Your task to perform on an android device: turn on javascript in the chrome app Image 0: 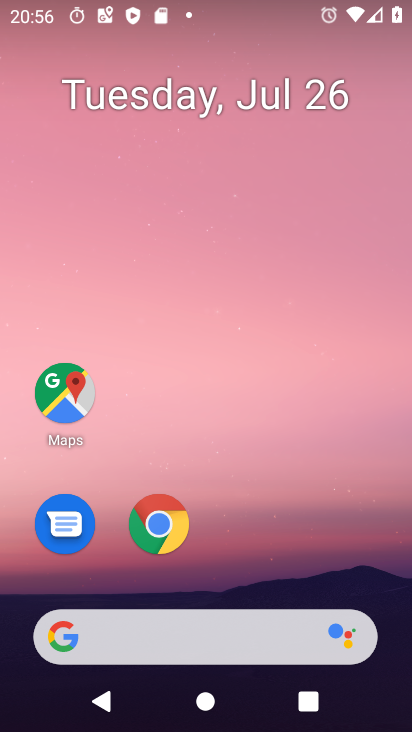
Step 0: click (163, 521)
Your task to perform on an android device: turn on javascript in the chrome app Image 1: 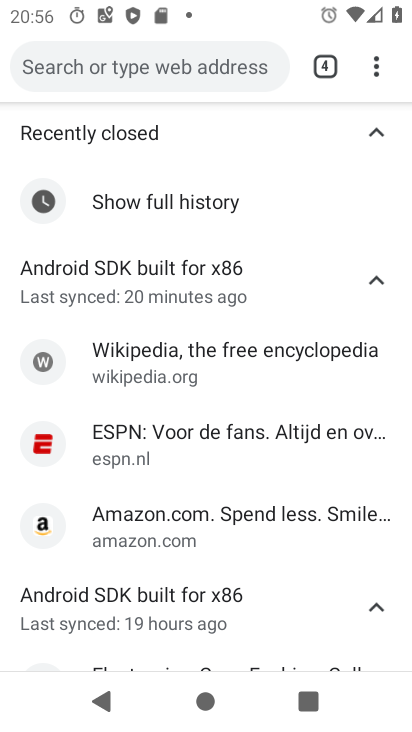
Step 1: click (373, 74)
Your task to perform on an android device: turn on javascript in the chrome app Image 2: 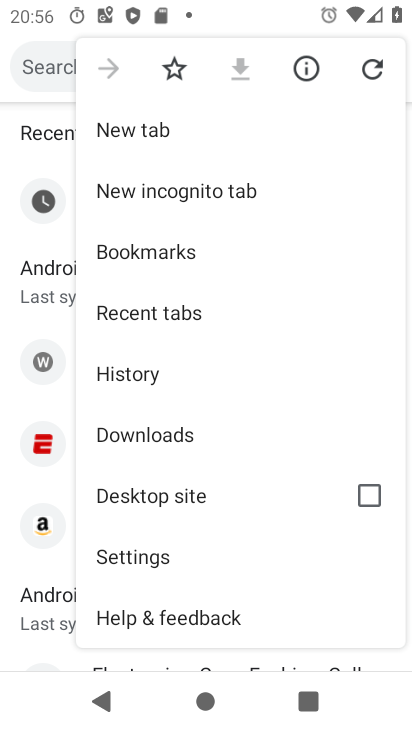
Step 2: click (148, 557)
Your task to perform on an android device: turn on javascript in the chrome app Image 3: 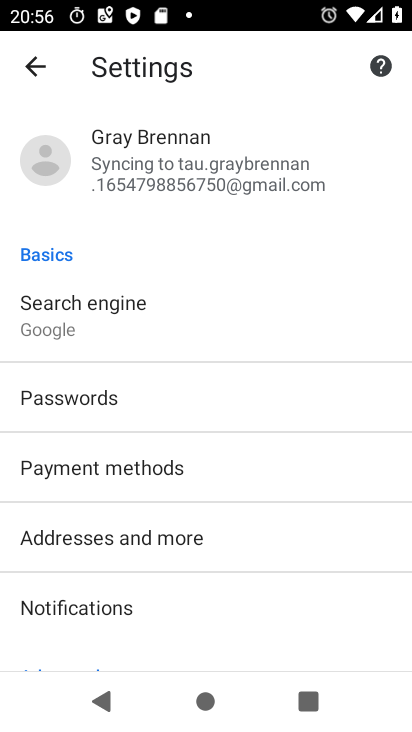
Step 3: drag from (250, 607) to (317, 71)
Your task to perform on an android device: turn on javascript in the chrome app Image 4: 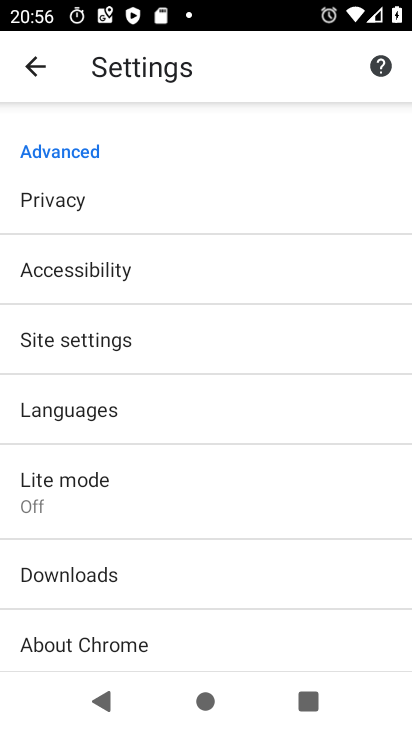
Step 4: click (129, 340)
Your task to perform on an android device: turn on javascript in the chrome app Image 5: 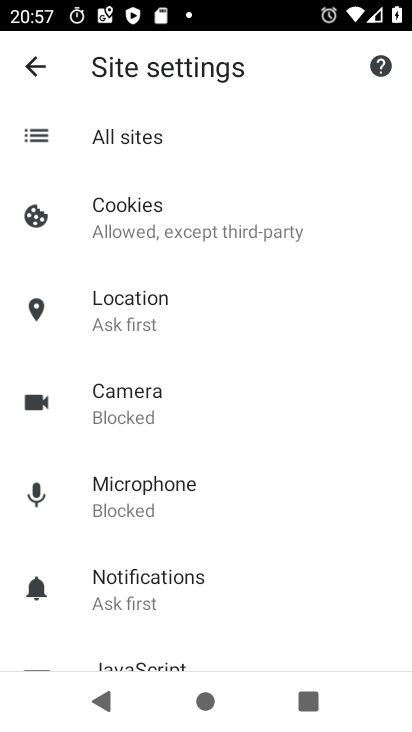
Step 5: drag from (217, 543) to (226, 223)
Your task to perform on an android device: turn on javascript in the chrome app Image 6: 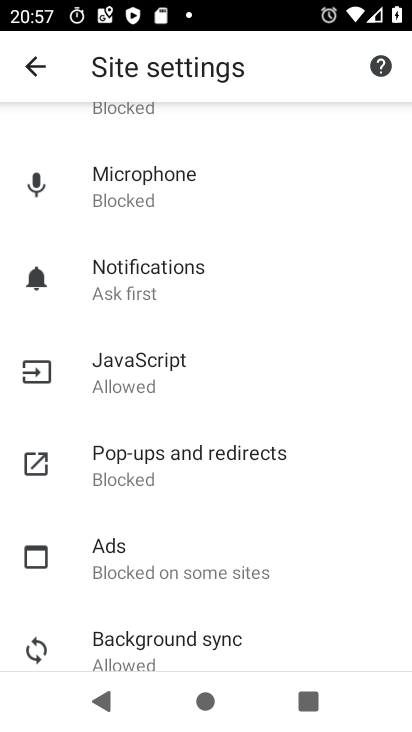
Step 6: click (221, 366)
Your task to perform on an android device: turn on javascript in the chrome app Image 7: 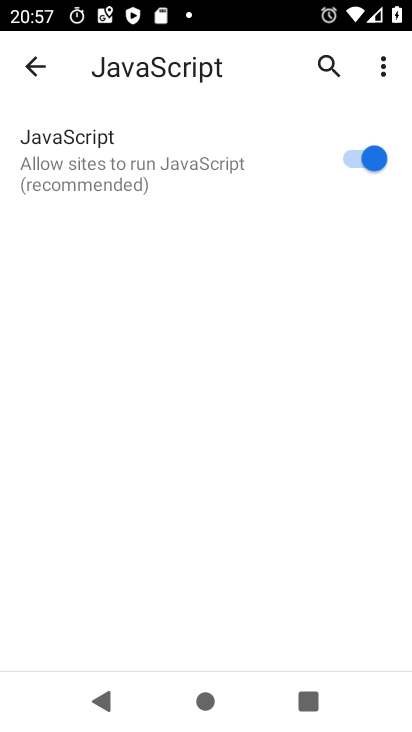
Step 7: task complete